Your task to perform on an android device: Go to notification settings Image 0: 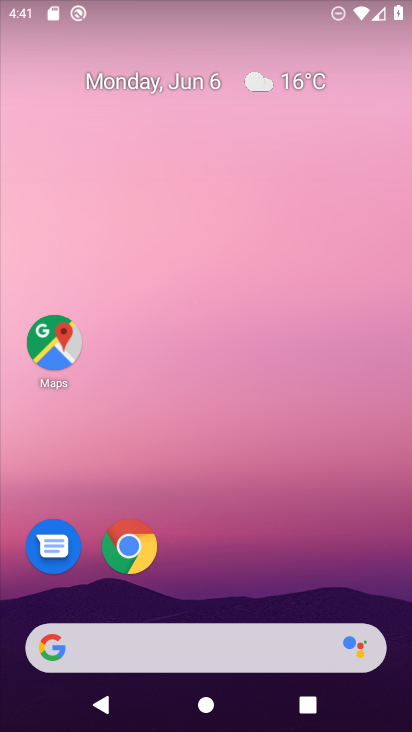
Step 0: drag from (236, 587) to (224, 92)
Your task to perform on an android device: Go to notification settings Image 1: 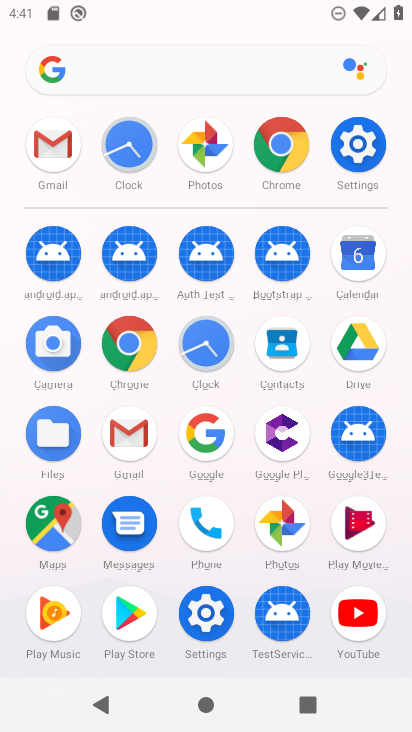
Step 1: click (334, 152)
Your task to perform on an android device: Go to notification settings Image 2: 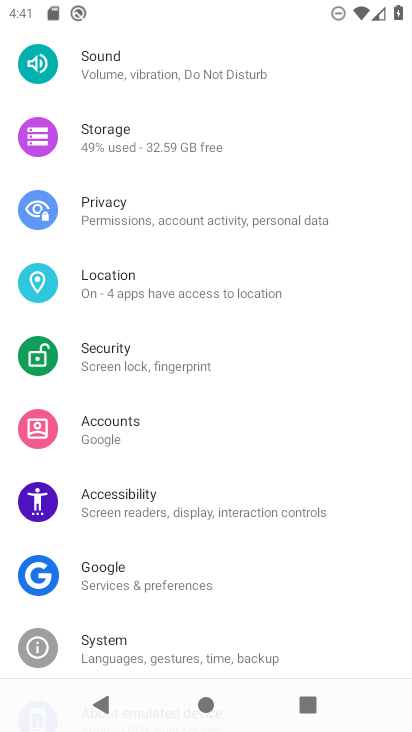
Step 2: drag from (332, 162) to (255, 642)
Your task to perform on an android device: Go to notification settings Image 3: 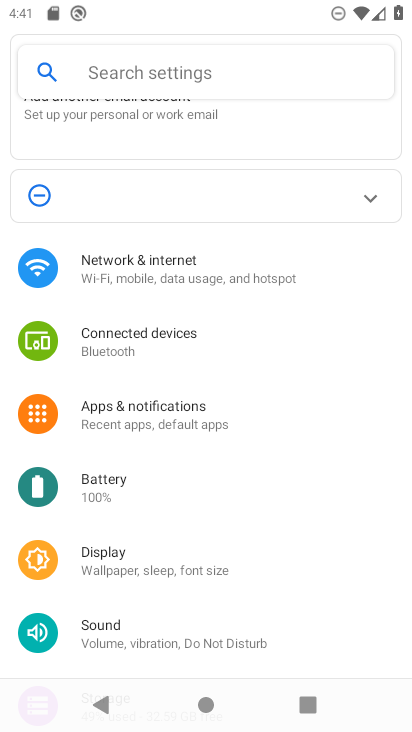
Step 3: click (179, 398)
Your task to perform on an android device: Go to notification settings Image 4: 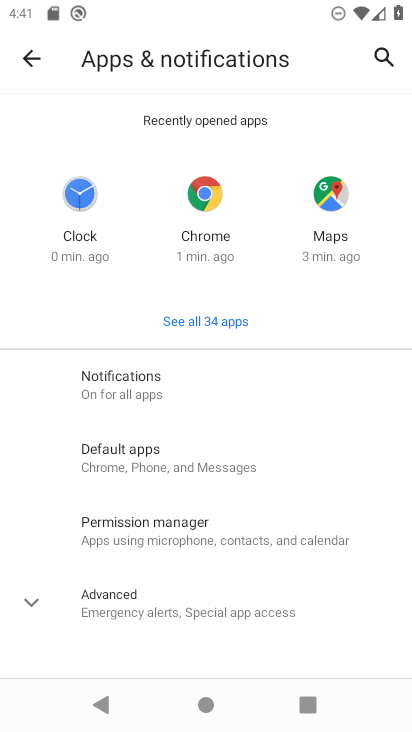
Step 4: click (193, 386)
Your task to perform on an android device: Go to notification settings Image 5: 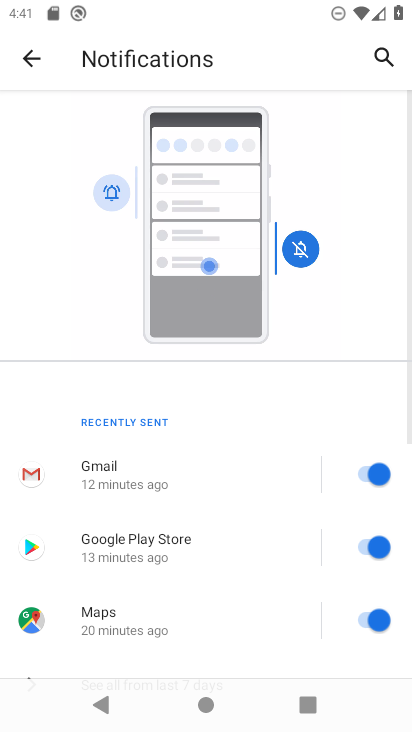
Step 5: task complete